Your task to perform on an android device: turn off wifi Image 0: 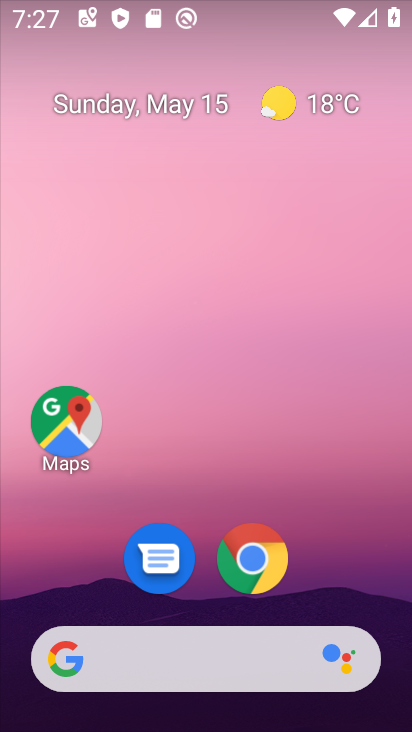
Step 0: drag from (330, 559) to (235, 186)
Your task to perform on an android device: turn off wifi Image 1: 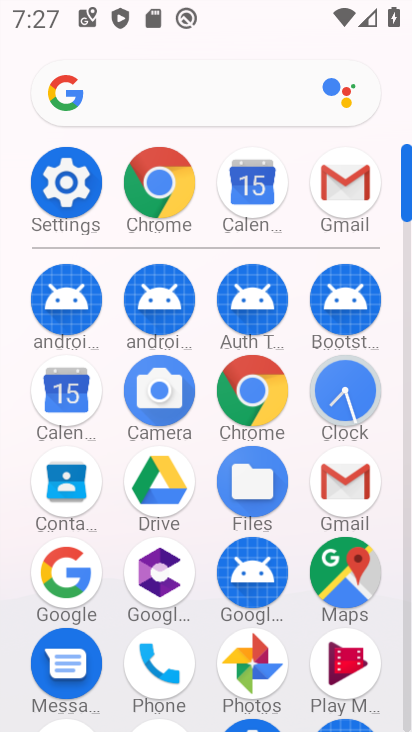
Step 1: click (58, 181)
Your task to perform on an android device: turn off wifi Image 2: 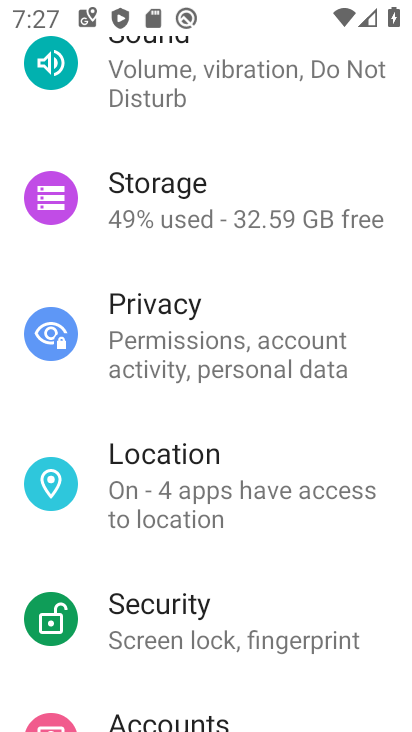
Step 2: drag from (214, 148) to (188, 730)
Your task to perform on an android device: turn off wifi Image 3: 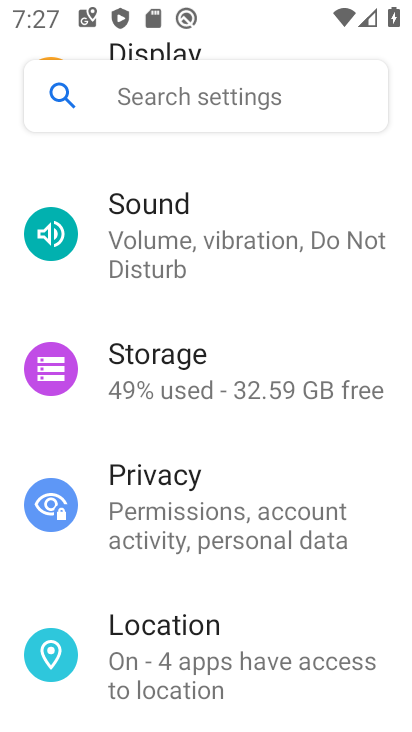
Step 3: drag from (199, 307) to (194, 721)
Your task to perform on an android device: turn off wifi Image 4: 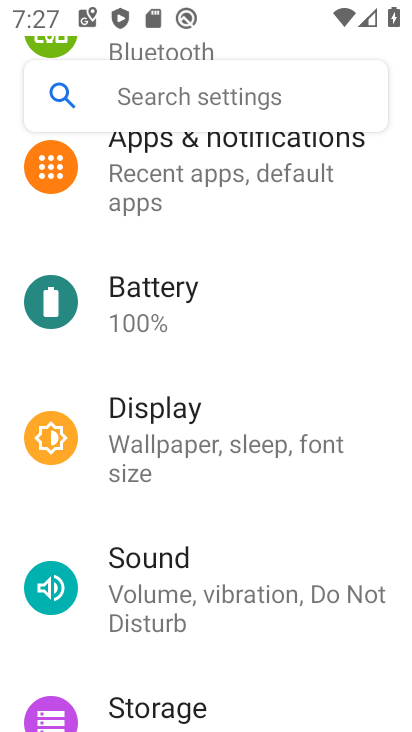
Step 4: drag from (176, 247) to (171, 707)
Your task to perform on an android device: turn off wifi Image 5: 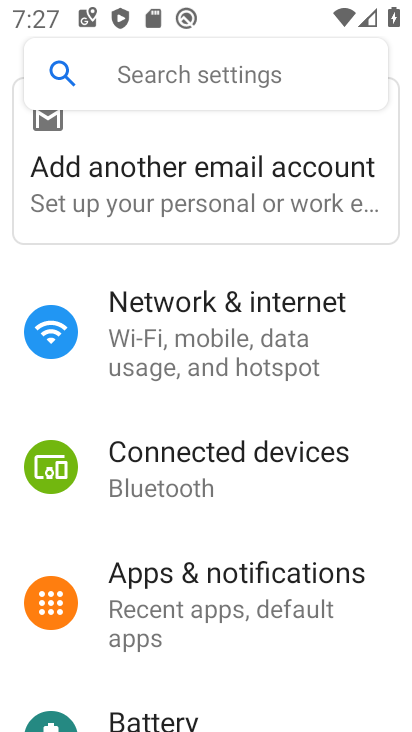
Step 5: click (190, 322)
Your task to perform on an android device: turn off wifi Image 6: 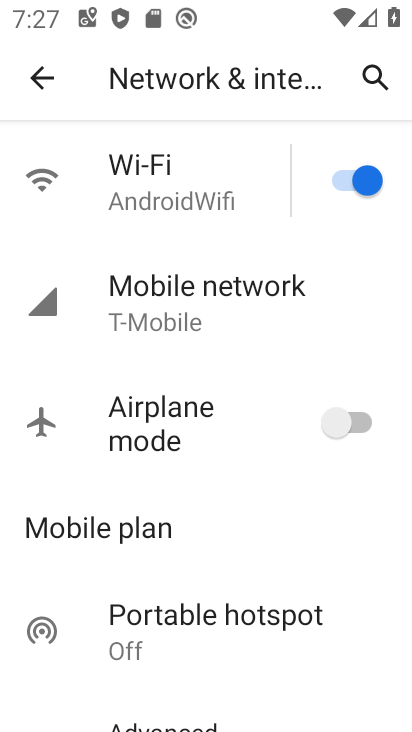
Step 6: click (356, 182)
Your task to perform on an android device: turn off wifi Image 7: 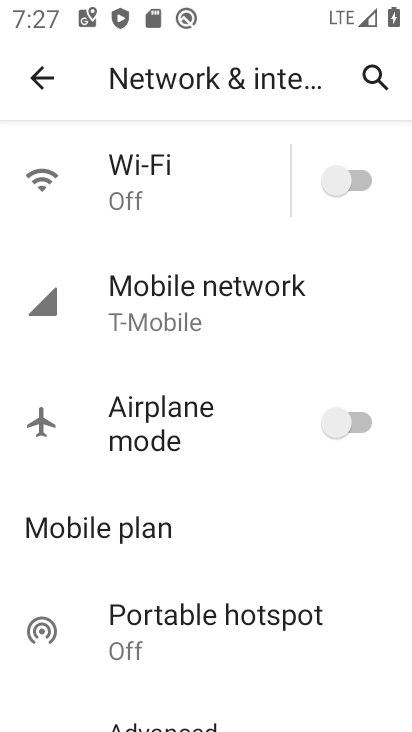
Step 7: task complete